Your task to perform on an android device: change alarm snooze length Image 0: 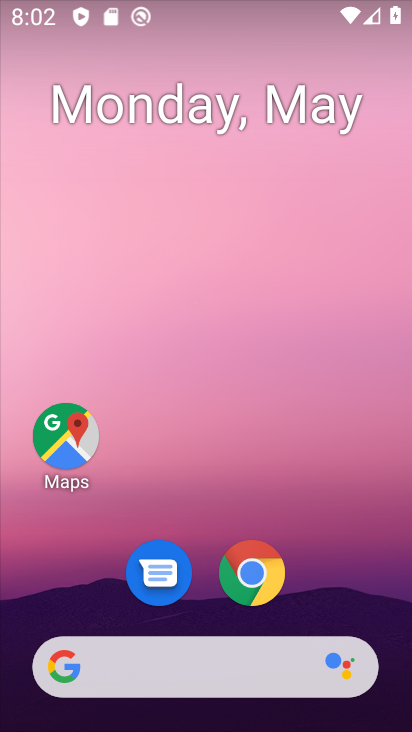
Step 0: drag from (351, 604) to (361, 20)
Your task to perform on an android device: change alarm snooze length Image 1: 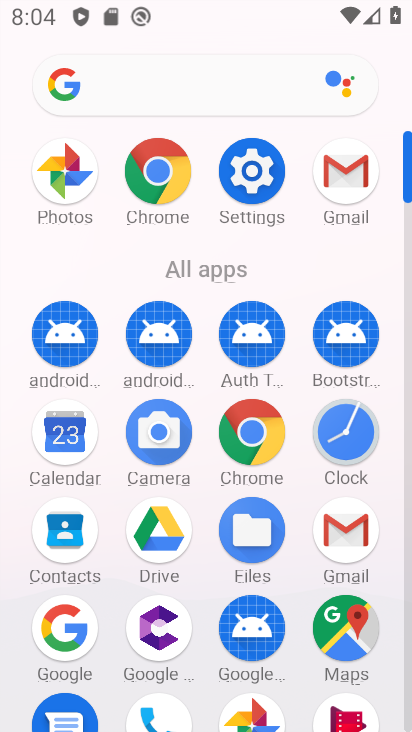
Step 1: click (344, 421)
Your task to perform on an android device: change alarm snooze length Image 2: 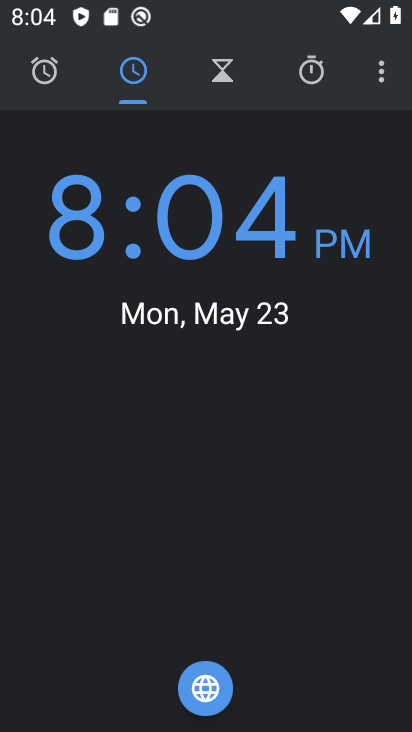
Step 2: click (394, 73)
Your task to perform on an android device: change alarm snooze length Image 3: 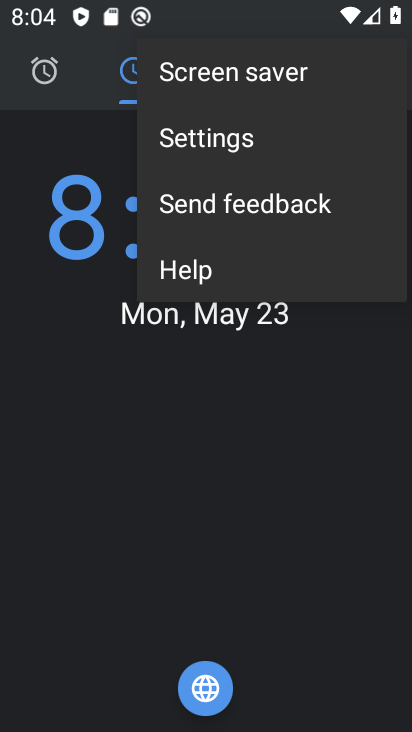
Step 3: click (281, 160)
Your task to perform on an android device: change alarm snooze length Image 4: 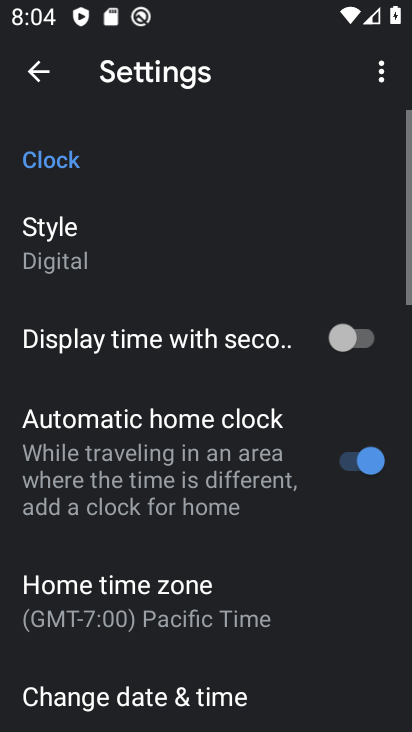
Step 4: drag from (216, 501) to (273, 182)
Your task to perform on an android device: change alarm snooze length Image 5: 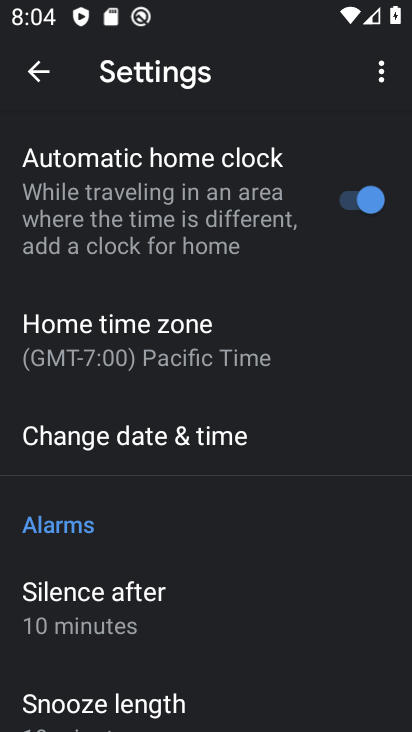
Step 5: click (135, 694)
Your task to perform on an android device: change alarm snooze length Image 6: 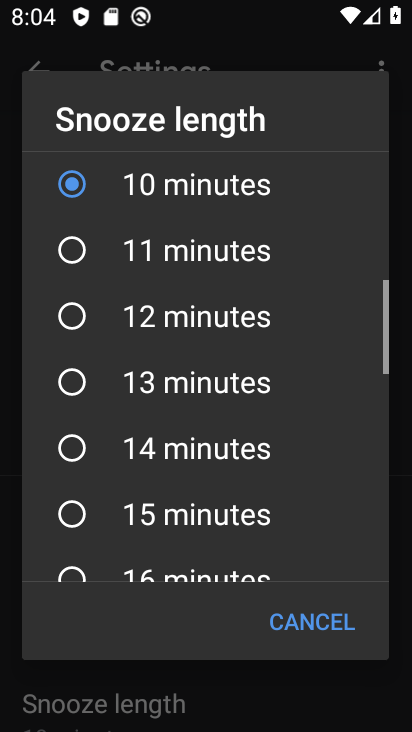
Step 6: click (214, 368)
Your task to perform on an android device: change alarm snooze length Image 7: 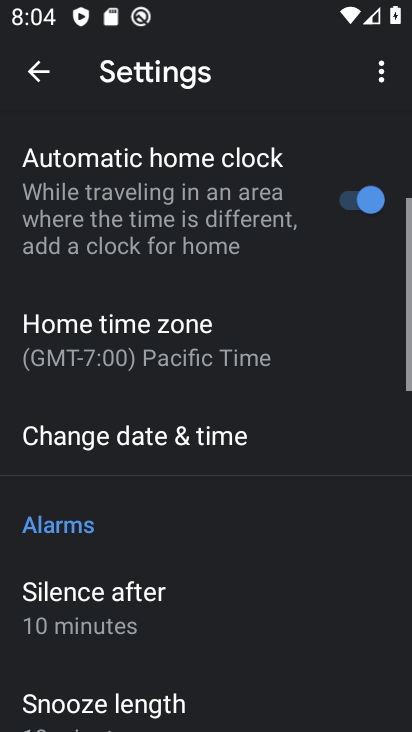
Step 7: task complete